Your task to perform on an android device: Open internet settings Image 0: 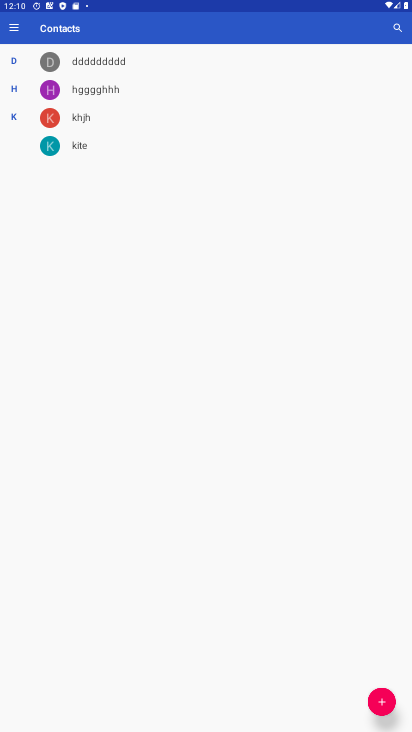
Step 0: press home button
Your task to perform on an android device: Open internet settings Image 1: 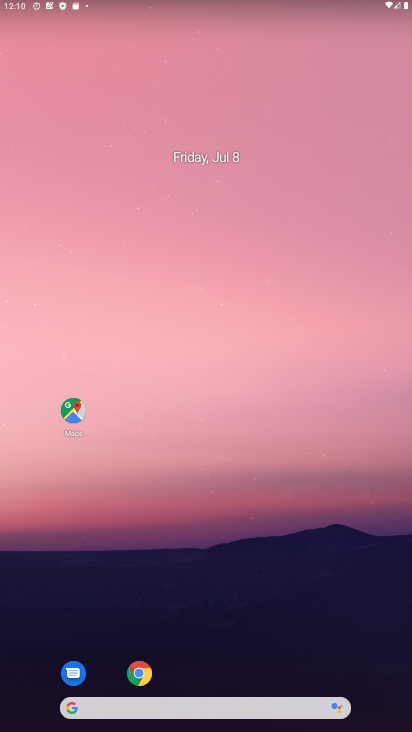
Step 1: drag from (246, 630) to (283, 84)
Your task to perform on an android device: Open internet settings Image 2: 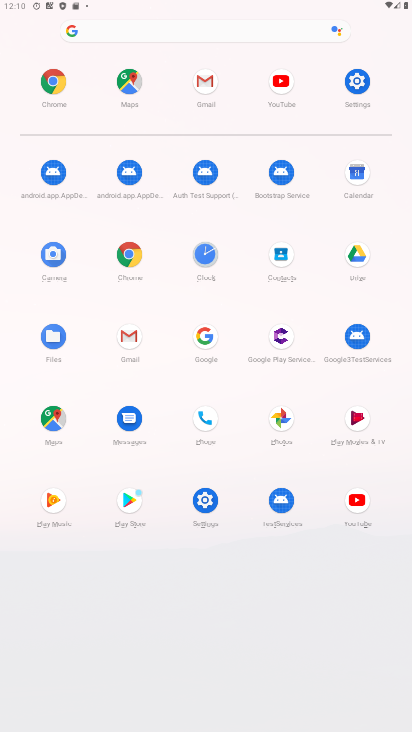
Step 2: click (360, 81)
Your task to perform on an android device: Open internet settings Image 3: 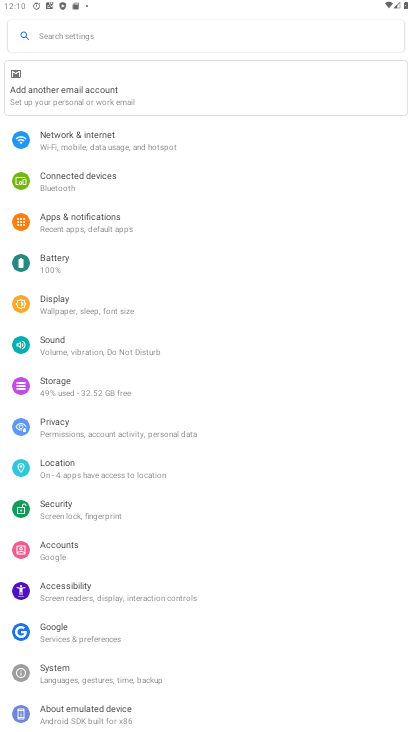
Step 3: click (110, 140)
Your task to perform on an android device: Open internet settings Image 4: 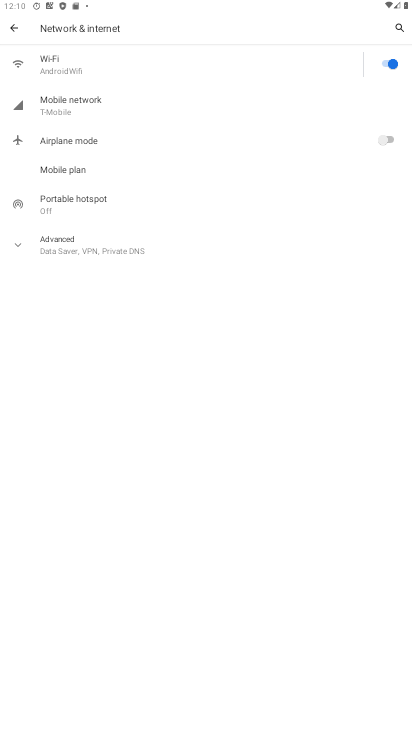
Step 4: task complete